Your task to perform on an android device: Go to Wikipedia Image 0: 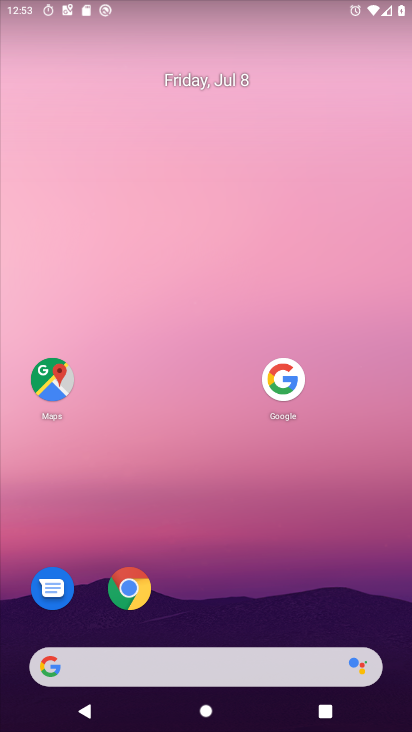
Step 0: press home button
Your task to perform on an android device: Go to Wikipedia Image 1: 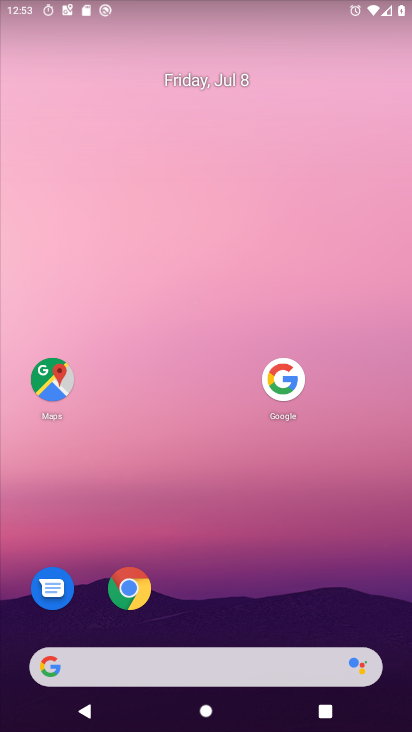
Step 1: click (112, 596)
Your task to perform on an android device: Go to Wikipedia Image 2: 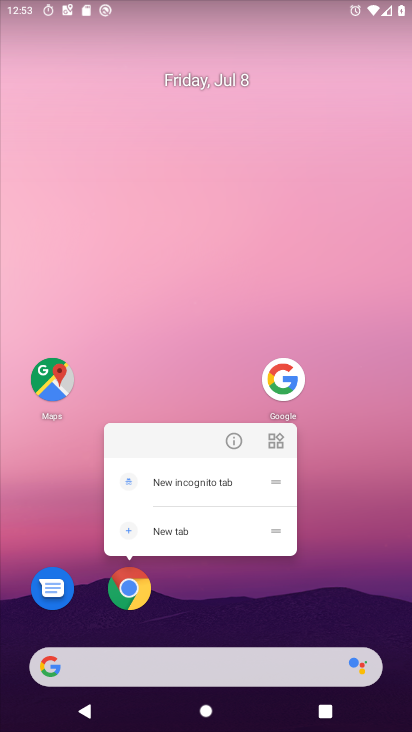
Step 2: click (128, 596)
Your task to perform on an android device: Go to Wikipedia Image 3: 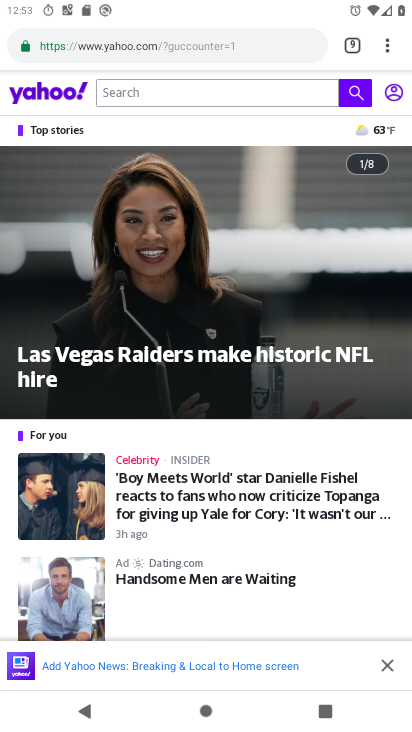
Step 3: drag from (389, 44) to (297, 97)
Your task to perform on an android device: Go to Wikipedia Image 4: 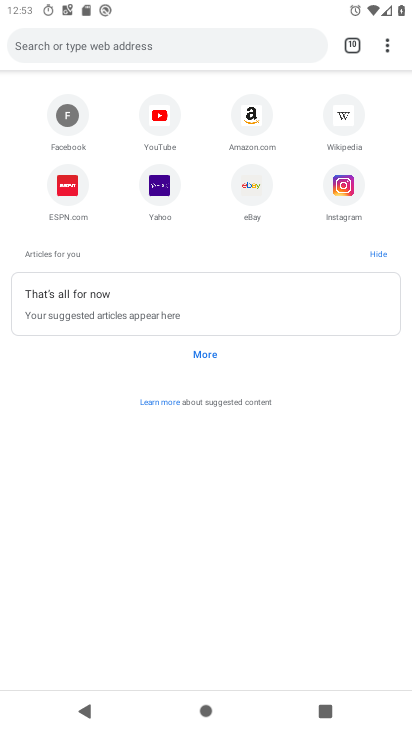
Step 4: click (343, 123)
Your task to perform on an android device: Go to Wikipedia Image 5: 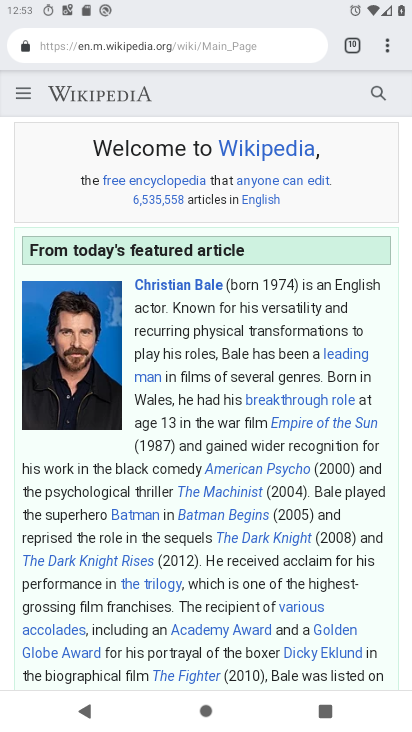
Step 5: task complete